Your task to perform on an android device: turn off notifications settings in the gmail app Image 0: 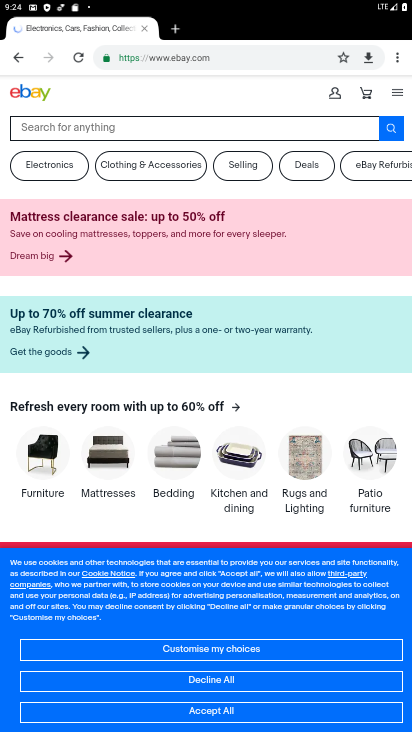
Step 0: press home button
Your task to perform on an android device: turn off notifications settings in the gmail app Image 1: 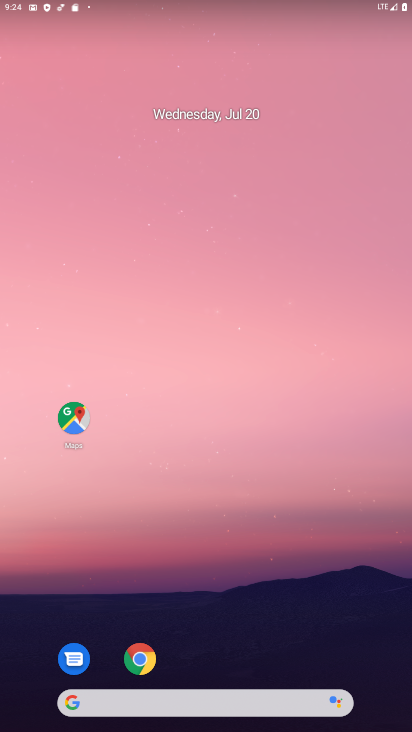
Step 1: drag from (200, 638) to (149, 130)
Your task to perform on an android device: turn off notifications settings in the gmail app Image 2: 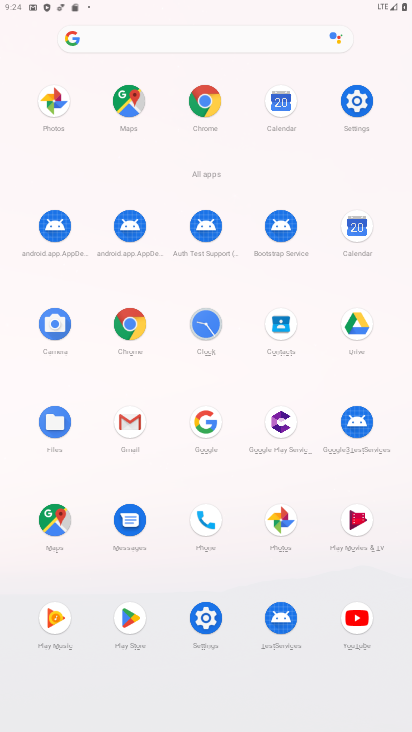
Step 2: click (122, 419)
Your task to perform on an android device: turn off notifications settings in the gmail app Image 3: 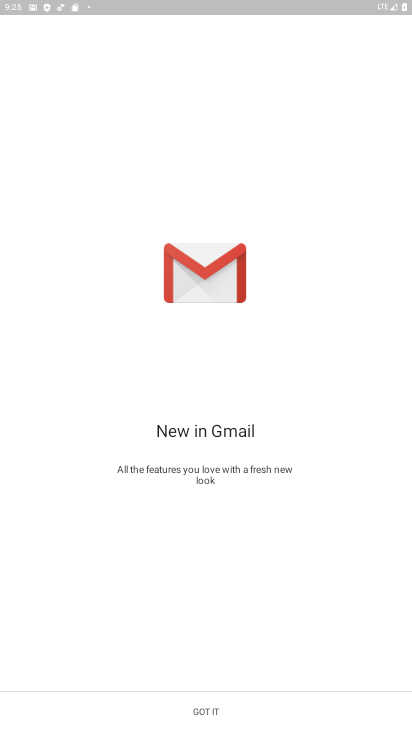
Step 3: click (209, 704)
Your task to perform on an android device: turn off notifications settings in the gmail app Image 4: 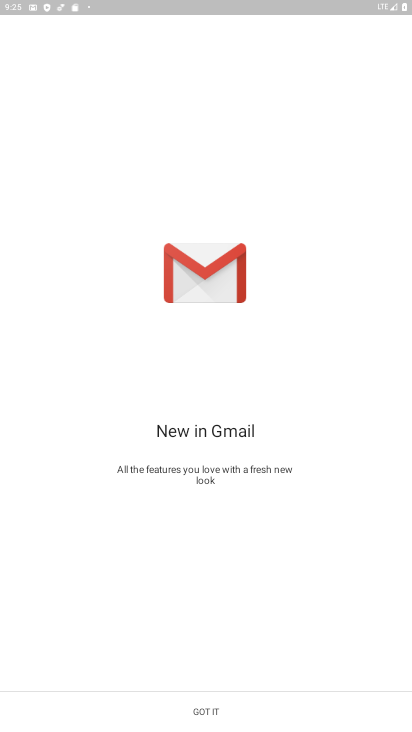
Step 4: click (209, 704)
Your task to perform on an android device: turn off notifications settings in the gmail app Image 5: 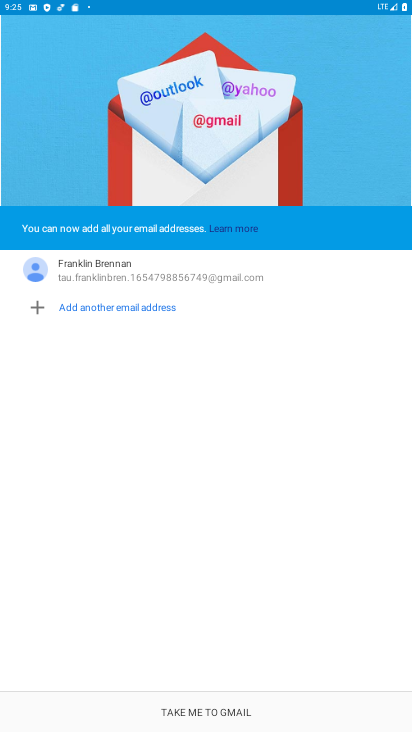
Step 5: click (209, 704)
Your task to perform on an android device: turn off notifications settings in the gmail app Image 6: 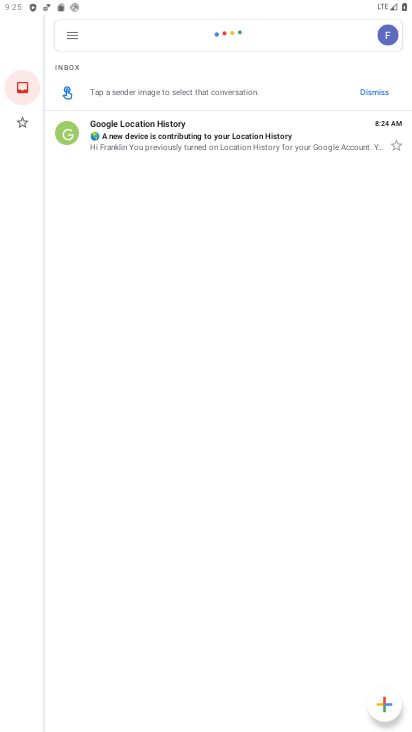
Step 6: click (69, 36)
Your task to perform on an android device: turn off notifications settings in the gmail app Image 7: 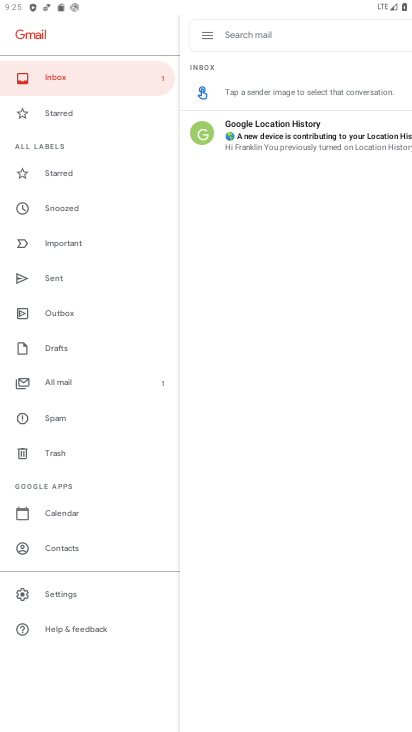
Step 7: click (70, 586)
Your task to perform on an android device: turn off notifications settings in the gmail app Image 8: 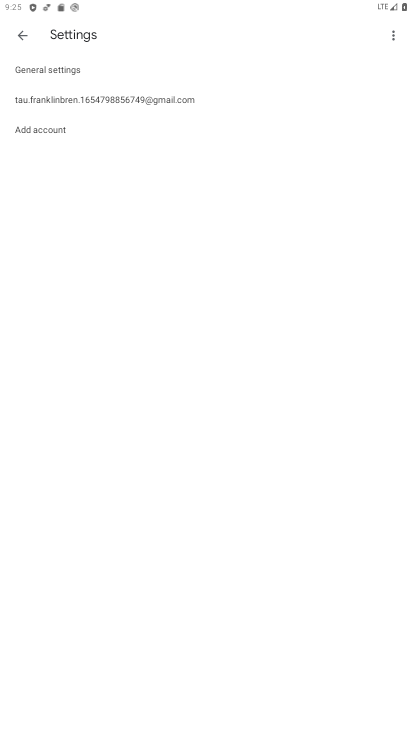
Step 8: click (71, 63)
Your task to perform on an android device: turn off notifications settings in the gmail app Image 9: 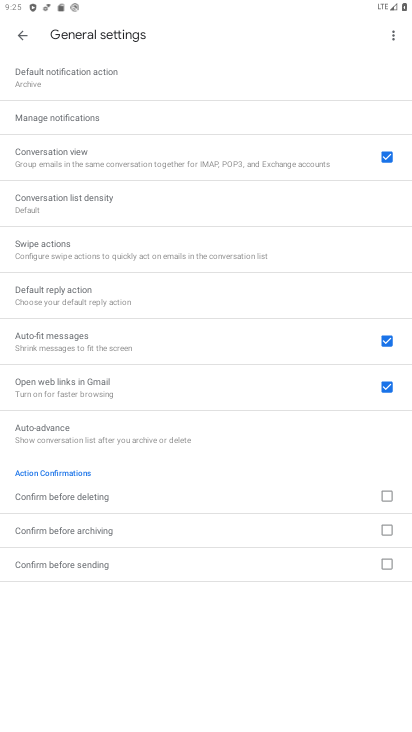
Step 9: click (71, 114)
Your task to perform on an android device: turn off notifications settings in the gmail app Image 10: 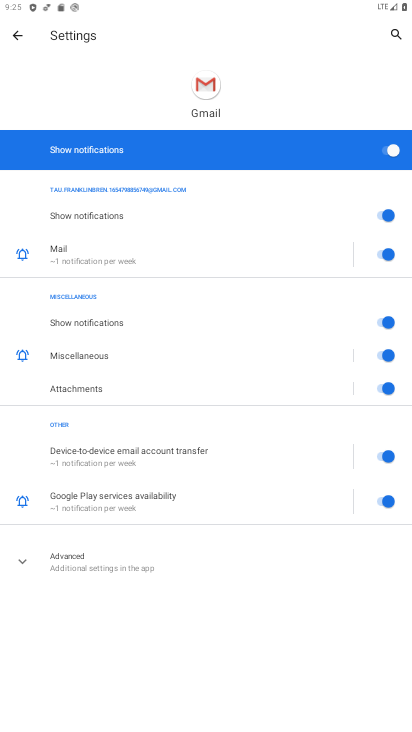
Step 10: click (396, 150)
Your task to perform on an android device: turn off notifications settings in the gmail app Image 11: 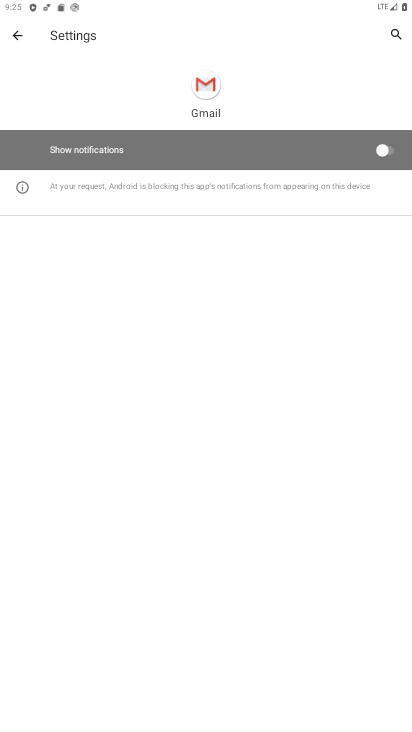
Step 11: task complete